Your task to perform on an android device: add a contact in the contacts app Image 0: 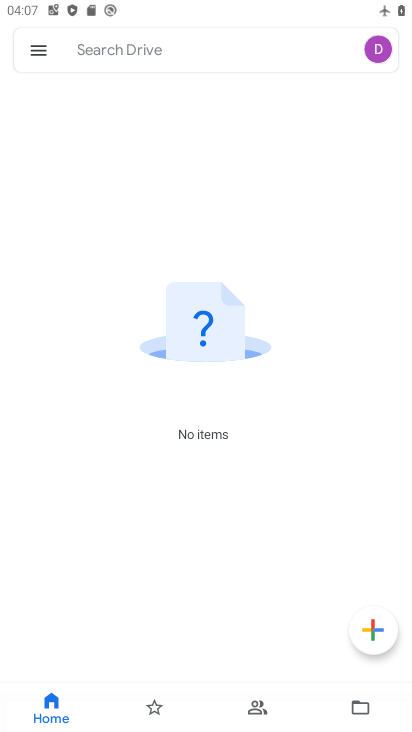
Step 0: press back button
Your task to perform on an android device: add a contact in the contacts app Image 1: 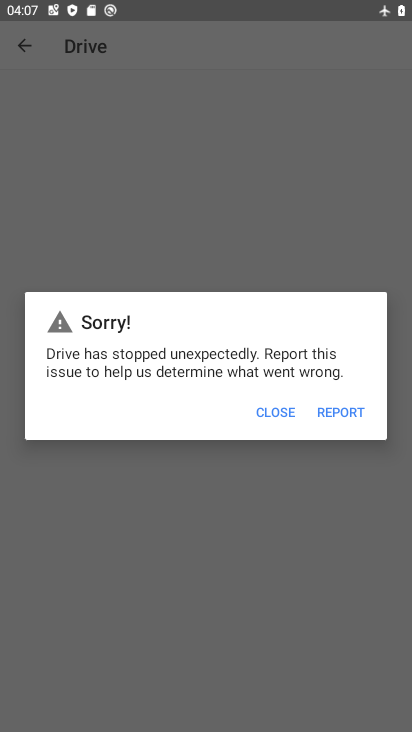
Step 1: press home button
Your task to perform on an android device: add a contact in the contacts app Image 2: 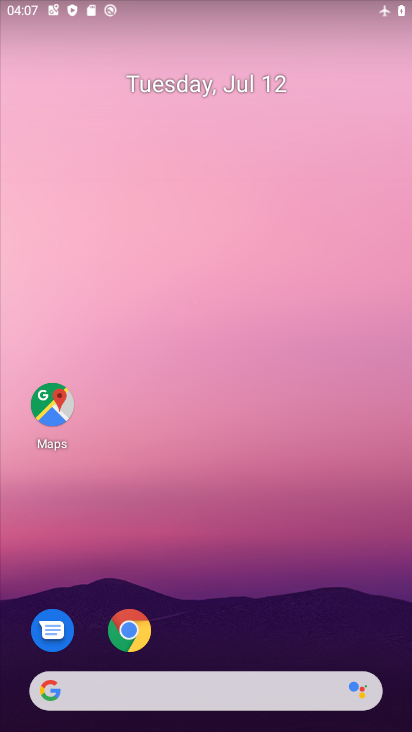
Step 2: drag from (142, 710) to (364, 9)
Your task to perform on an android device: add a contact in the contacts app Image 3: 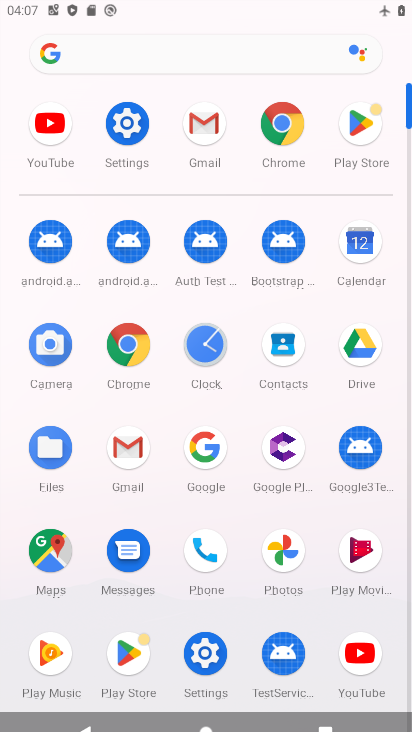
Step 3: click (281, 349)
Your task to perform on an android device: add a contact in the contacts app Image 4: 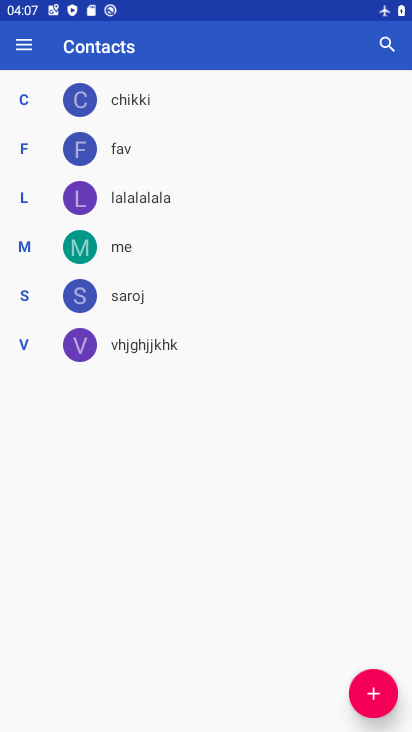
Step 4: click (377, 684)
Your task to perform on an android device: add a contact in the contacts app Image 5: 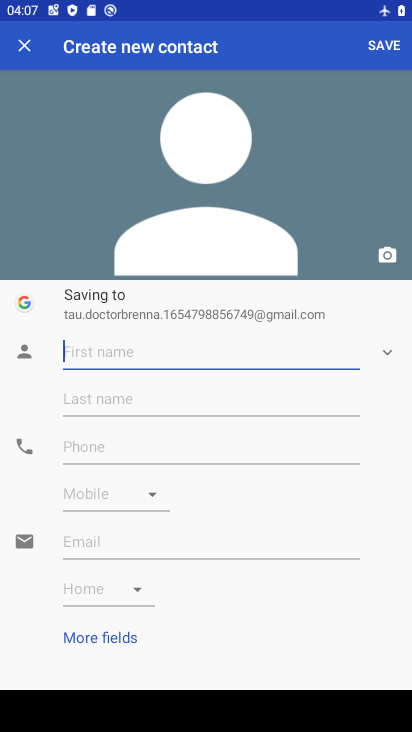
Step 5: type "gaurav"
Your task to perform on an android device: add a contact in the contacts app Image 6: 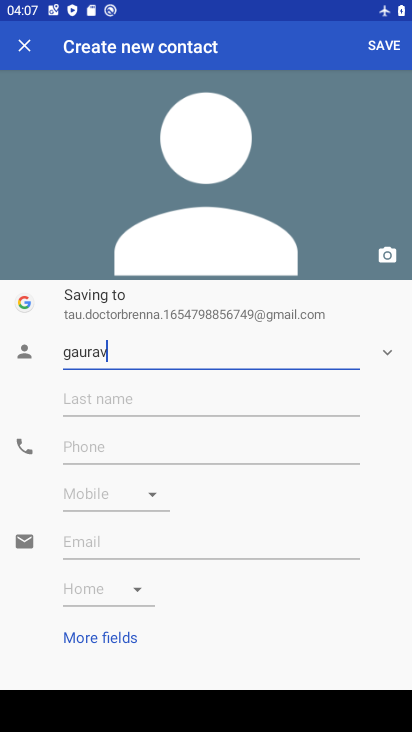
Step 6: click (107, 448)
Your task to perform on an android device: add a contact in the contacts app Image 7: 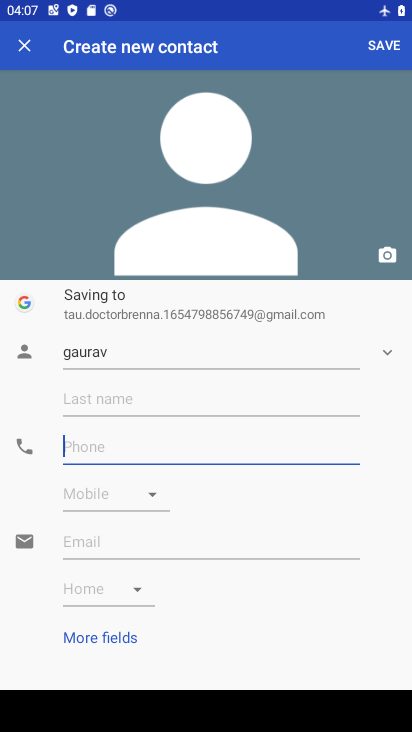
Step 7: type "98976756545"
Your task to perform on an android device: add a contact in the contacts app Image 8: 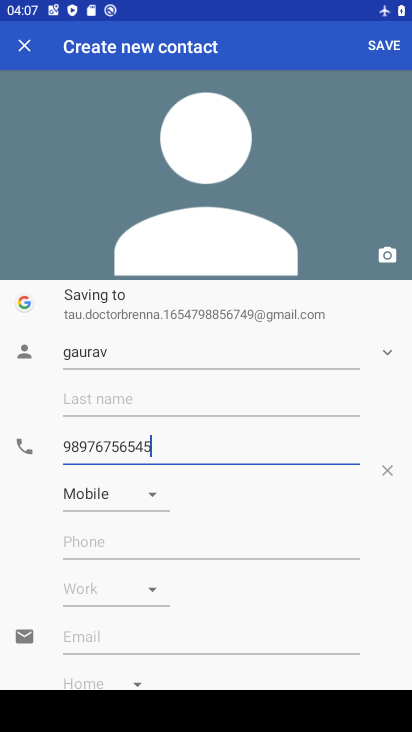
Step 8: click (390, 47)
Your task to perform on an android device: add a contact in the contacts app Image 9: 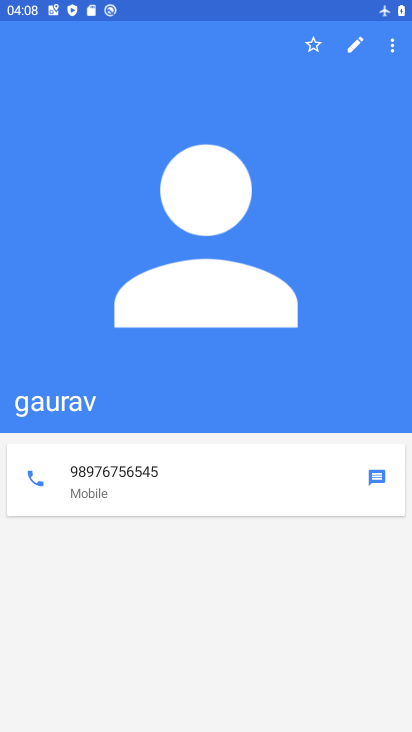
Step 9: task complete